Your task to perform on an android device: Open Google Chrome Image 0: 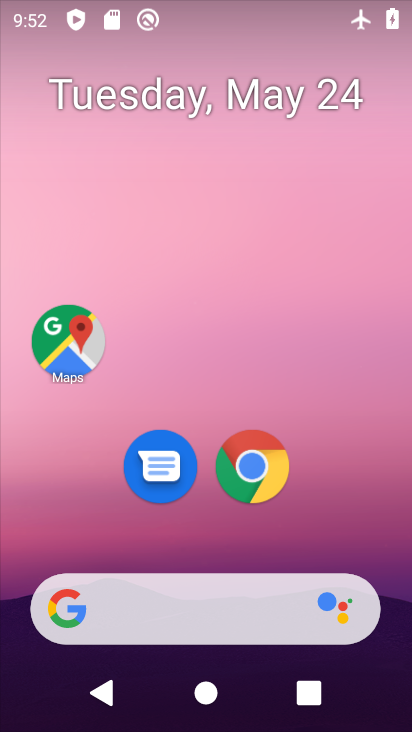
Step 0: click (274, 467)
Your task to perform on an android device: Open Google Chrome Image 1: 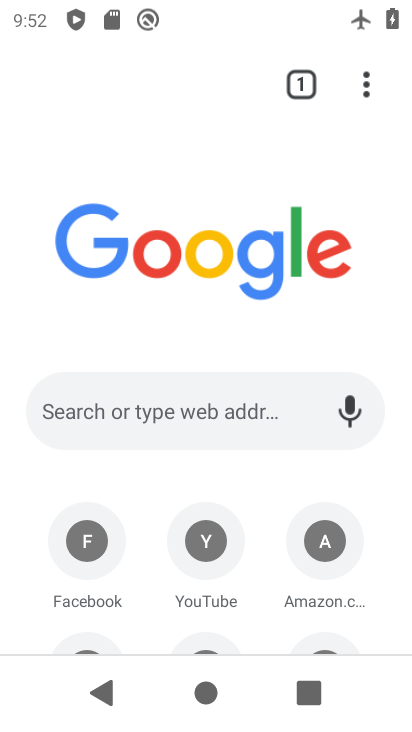
Step 1: task complete